Your task to perform on an android device: turn notification dots on Image 0: 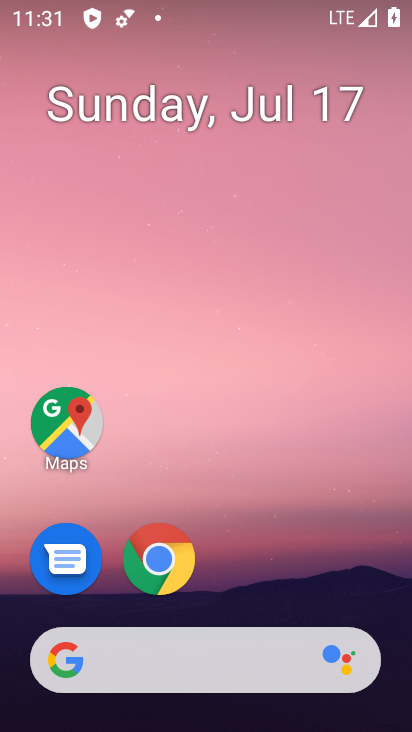
Step 0: drag from (295, 445) to (313, 27)
Your task to perform on an android device: turn notification dots on Image 1: 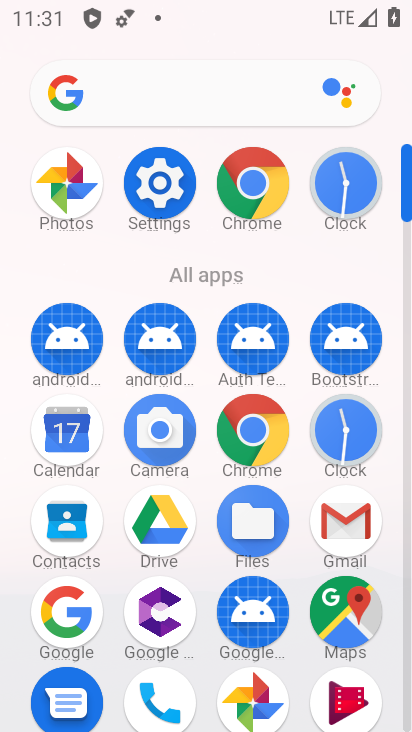
Step 1: click (132, 169)
Your task to perform on an android device: turn notification dots on Image 2: 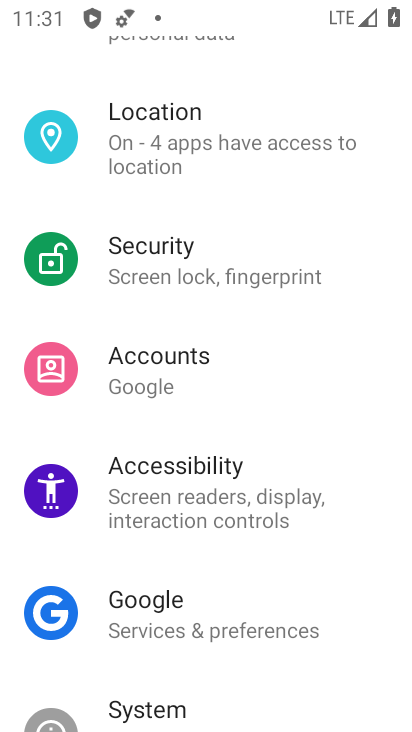
Step 2: drag from (179, 181) to (134, 710)
Your task to perform on an android device: turn notification dots on Image 3: 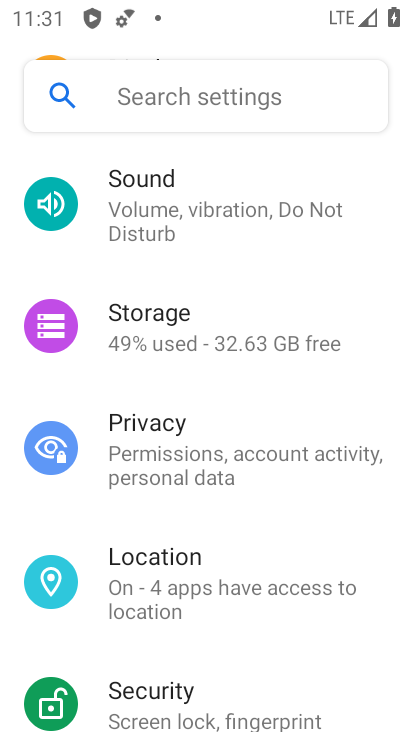
Step 3: drag from (206, 356) to (234, 725)
Your task to perform on an android device: turn notification dots on Image 4: 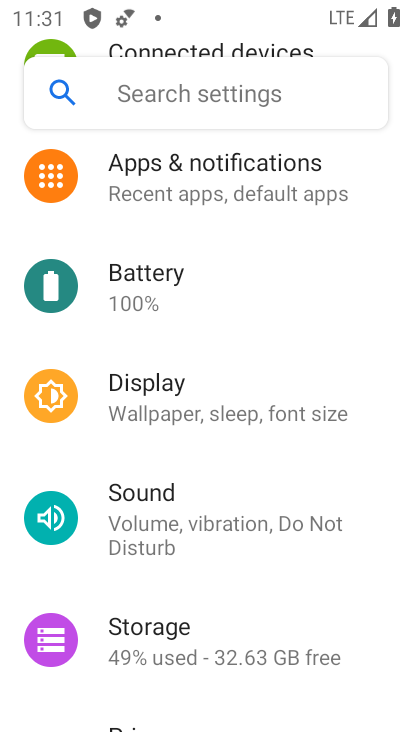
Step 4: click (196, 188)
Your task to perform on an android device: turn notification dots on Image 5: 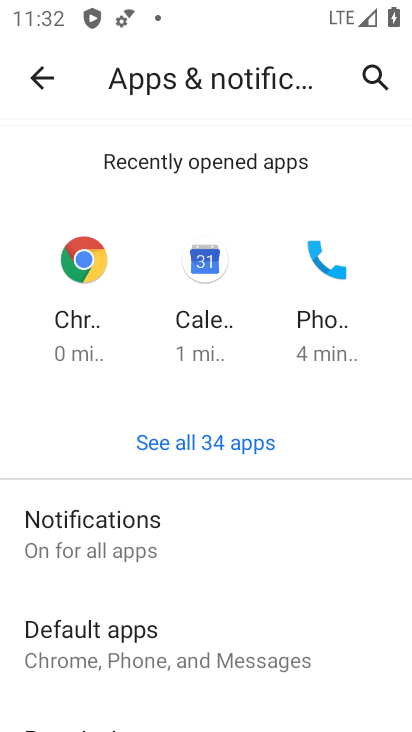
Step 5: click (141, 561)
Your task to perform on an android device: turn notification dots on Image 6: 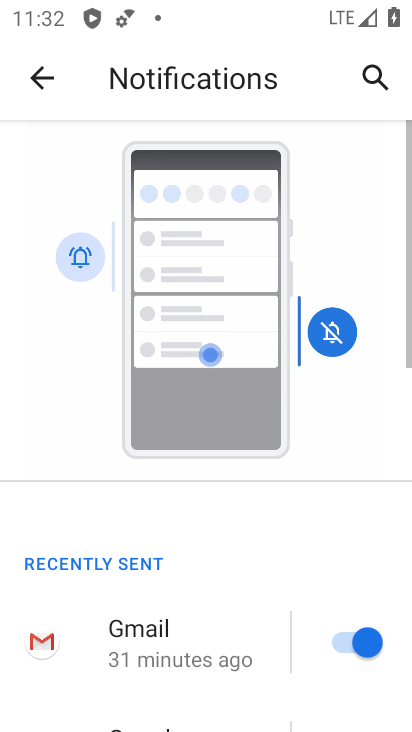
Step 6: drag from (158, 671) to (241, 52)
Your task to perform on an android device: turn notification dots on Image 7: 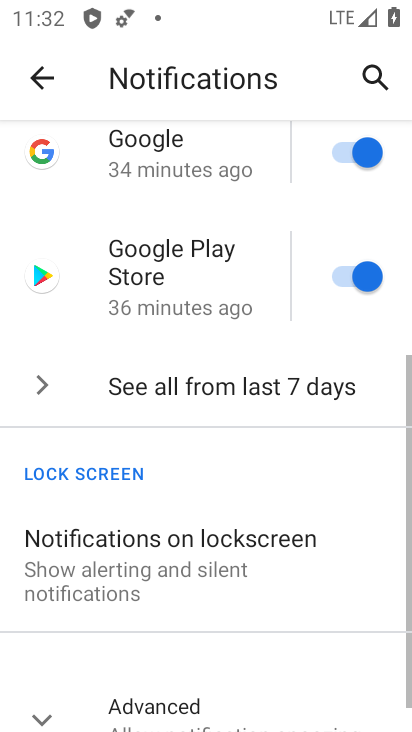
Step 7: drag from (207, 594) to (305, 1)
Your task to perform on an android device: turn notification dots on Image 8: 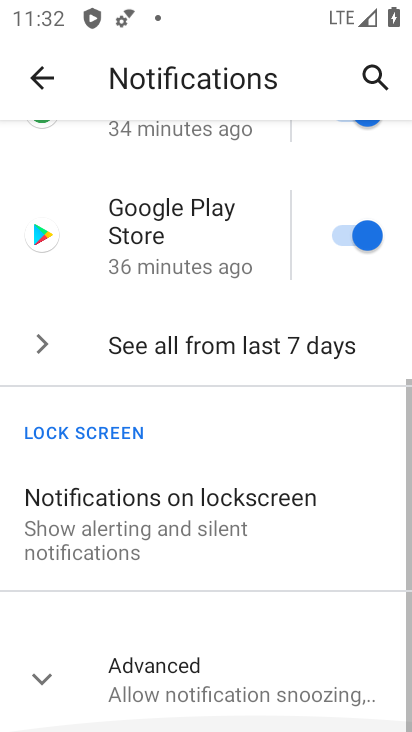
Step 8: click (154, 664)
Your task to perform on an android device: turn notification dots on Image 9: 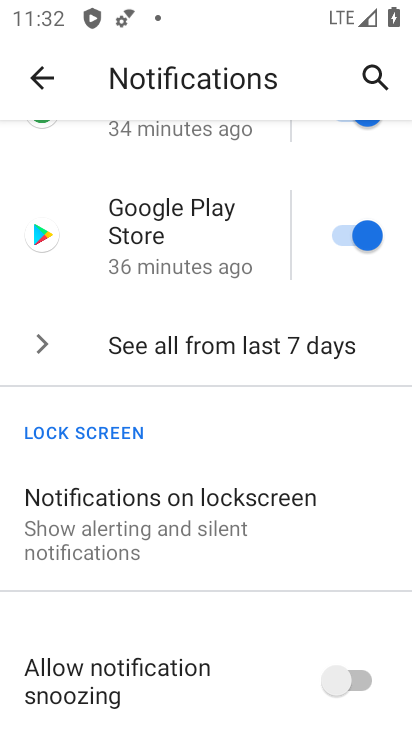
Step 9: task complete